Your task to perform on an android device: Open network settings Image 0: 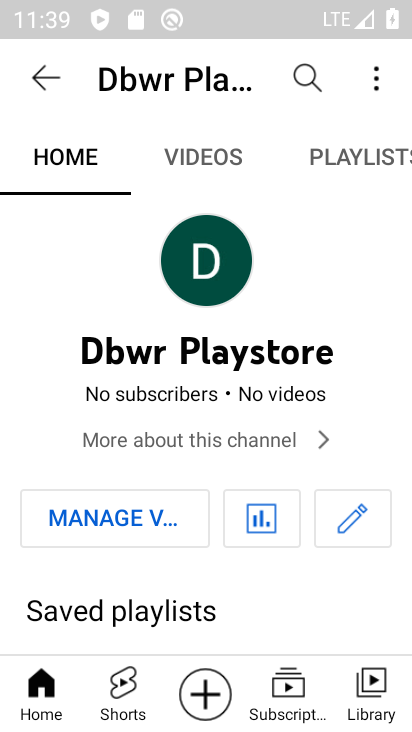
Step 0: press home button
Your task to perform on an android device: Open network settings Image 1: 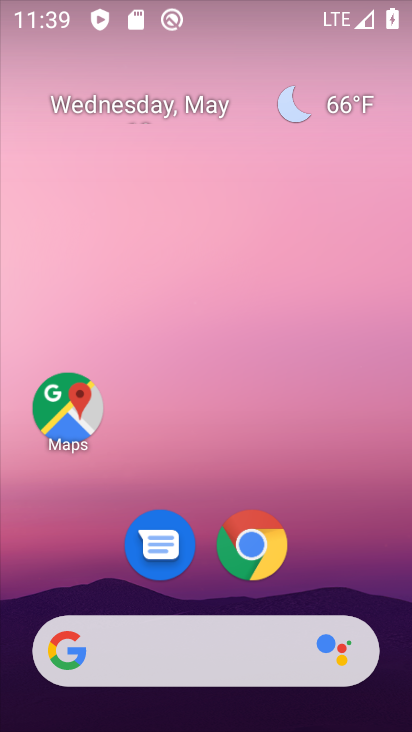
Step 1: drag from (206, 693) to (200, 22)
Your task to perform on an android device: Open network settings Image 2: 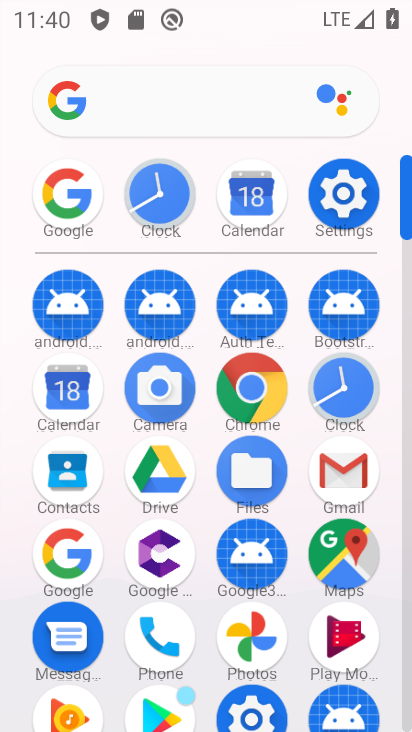
Step 2: click (313, 194)
Your task to perform on an android device: Open network settings Image 3: 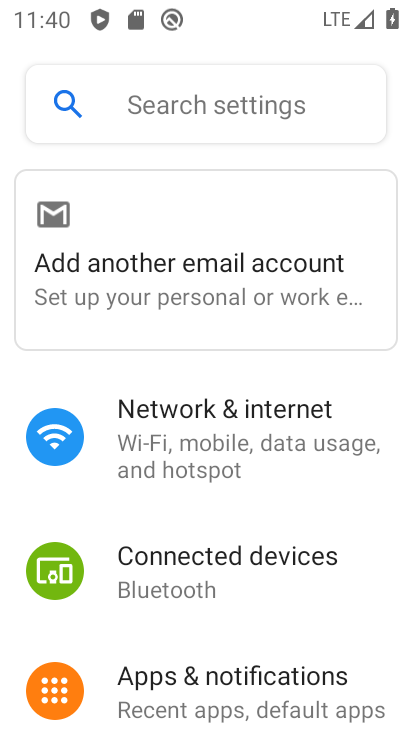
Step 3: click (221, 429)
Your task to perform on an android device: Open network settings Image 4: 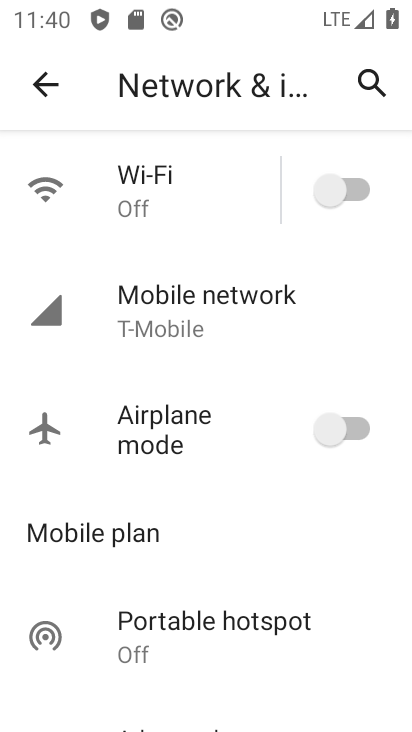
Step 4: task complete